Your task to perform on an android device: turn on the 24-hour format for clock Image 0: 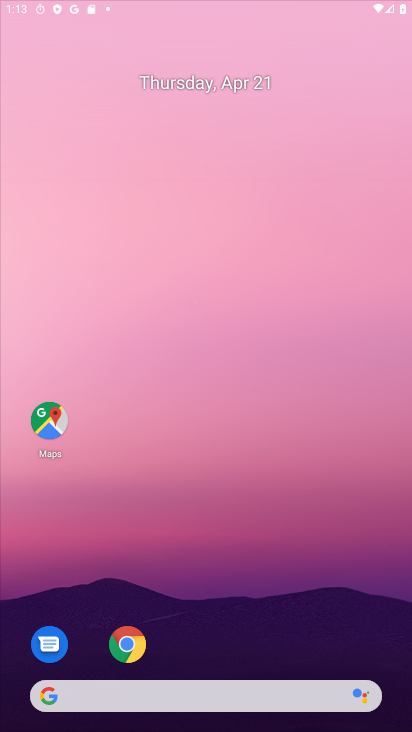
Step 0: press back button
Your task to perform on an android device: turn on the 24-hour format for clock Image 1: 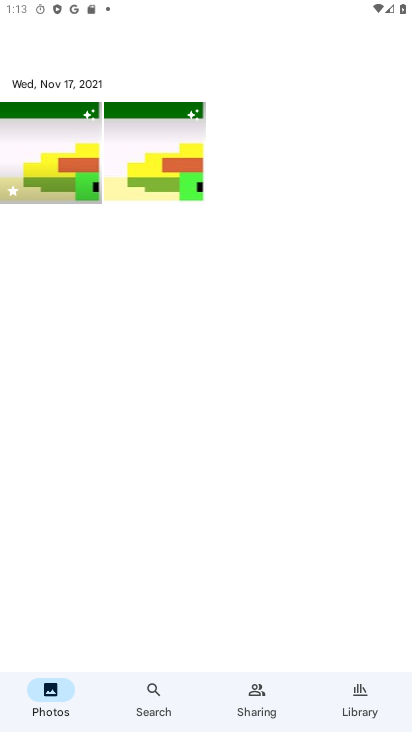
Step 1: press back button
Your task to perform on an android device: turn on the 24-hour format for clock Image 2: 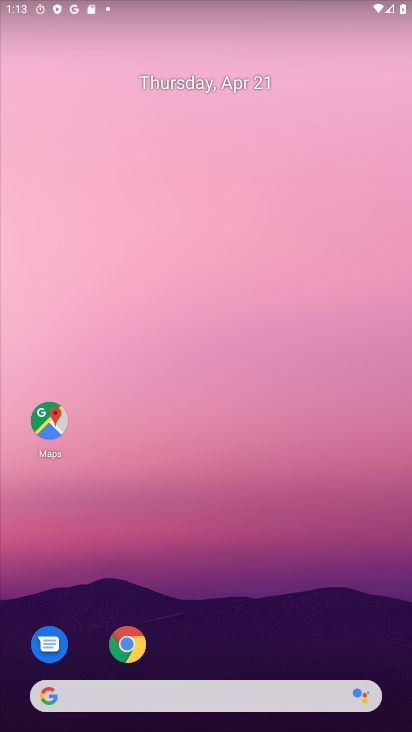
Step 2: drag from (297, 621) to (256, 73)
Your task to perform on an android device: turn on the 24-hour format for clock Image 3: 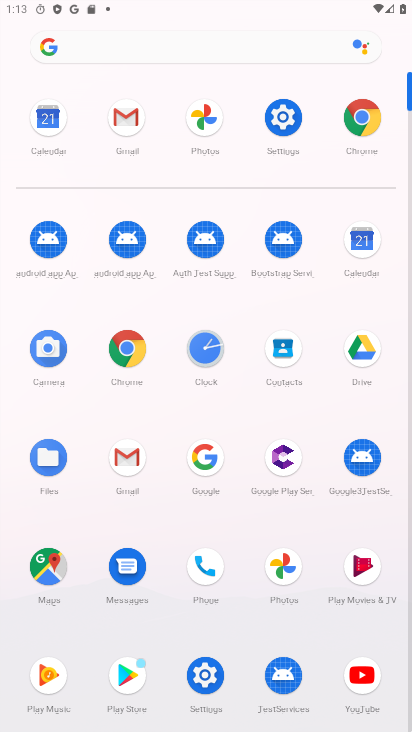
Step 3: click (213, 340)
Your task to perform on an android device: turn on the 24-hour format for clock Image 4: 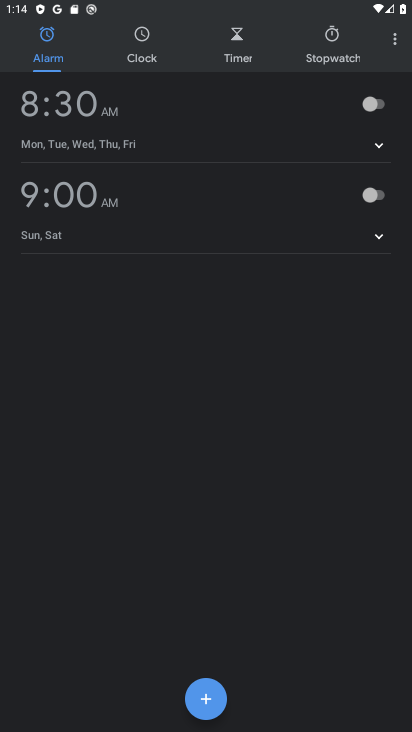
Step 4: click (391, 50)
Your task to perform on an android device: turn on the 24-hour format for clock Image 5: 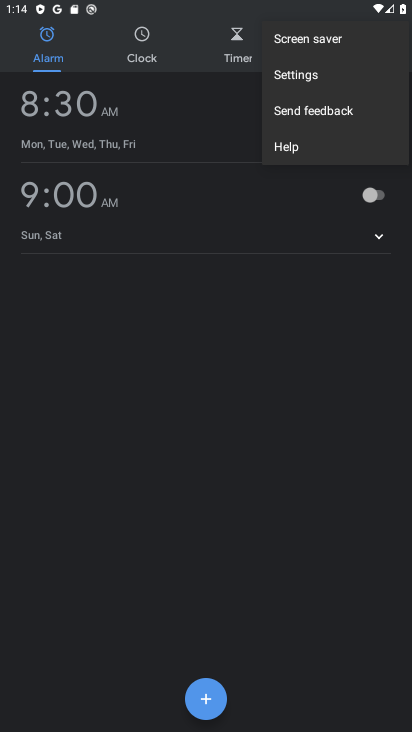
Step 5: click (363, 81)
Your task to perform on an android device: turn on the 24-hour format for clock Image 6: 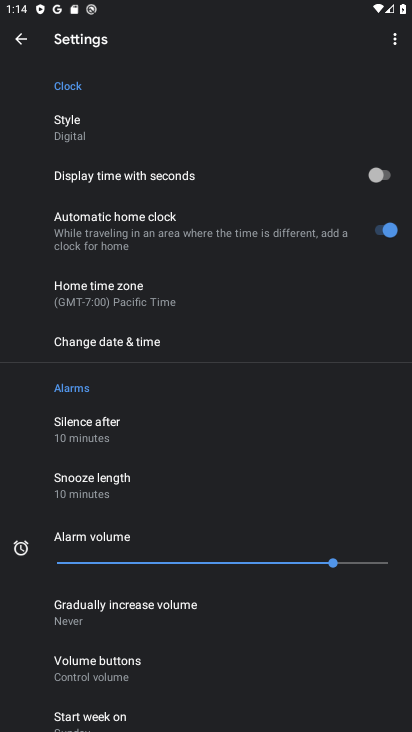
Step 6: click (217, 346)
Your task to perform on an android device: turn on the 24-hour format for clock Image 7: 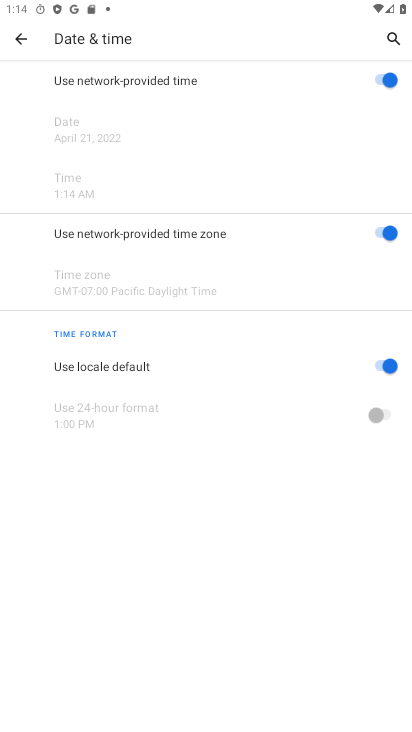
Step 7: click (384, 366)
Your task to perform on an android device: turn on the 24-hour format for clock Image 8: 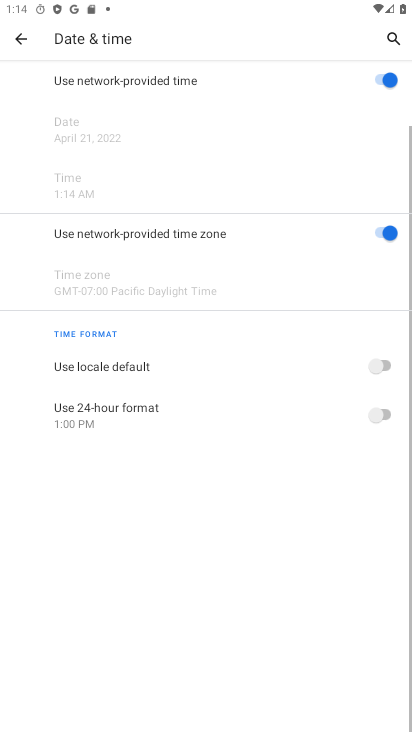
Step 8: click (384, 417)
Your task to perform on an android device: turn on the 24-hour format for clock Image 9: 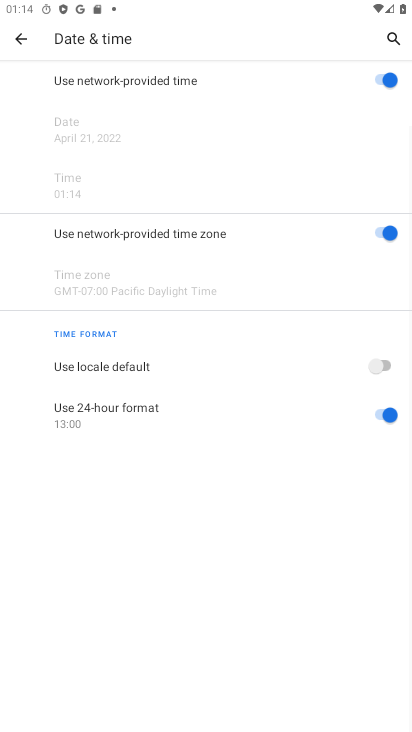
Step 9: task complete